Your task to perform on an android device: Search for vegetarian restaurants on Maps Image 0: 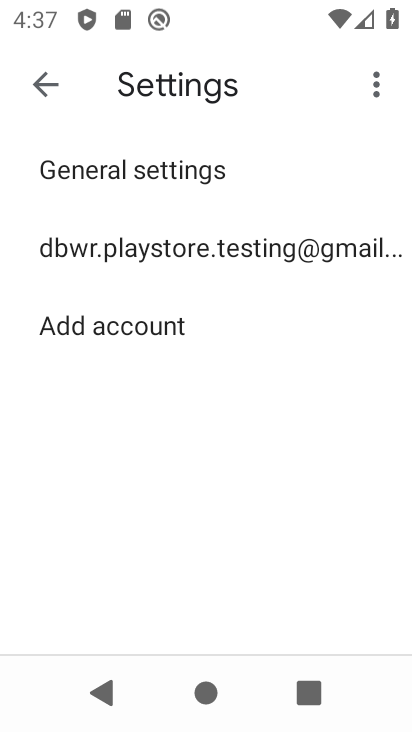
Step 0: press home button
Your task to perform on an android device: Search for vegetarian restaurants on Maps Image 1: 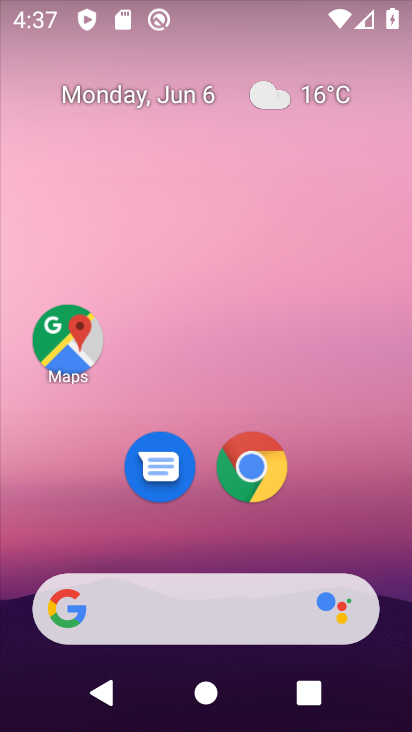
Step 1: click (62, 338)
Your task to perform on an android device: Search for vegetarian restaurants on Maps Image 2: 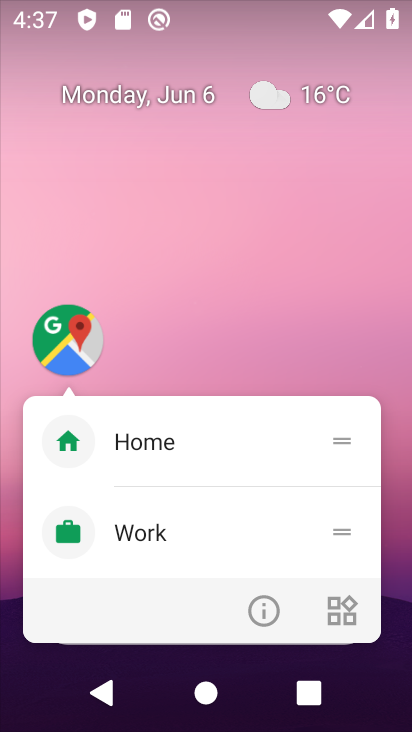
Step 2: click (66, 341)
Your task to perform on an android device: Search for vegetarian restaurants on Maps Image 3: 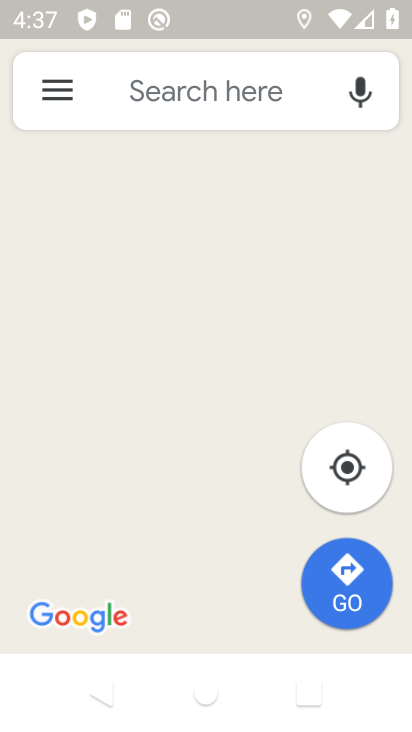
Step 3: click (182, 115)
Your task to perform on an android device: Search for vegetarian restaurants on Maps Image 4: 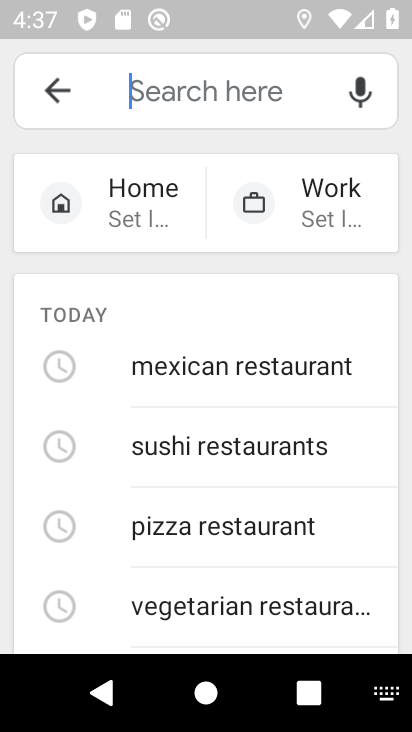
Step 4: type "vegetarian restaurants"
Your task to perform on an android device: Search for vegetarian restaurants on Maps Image 5: 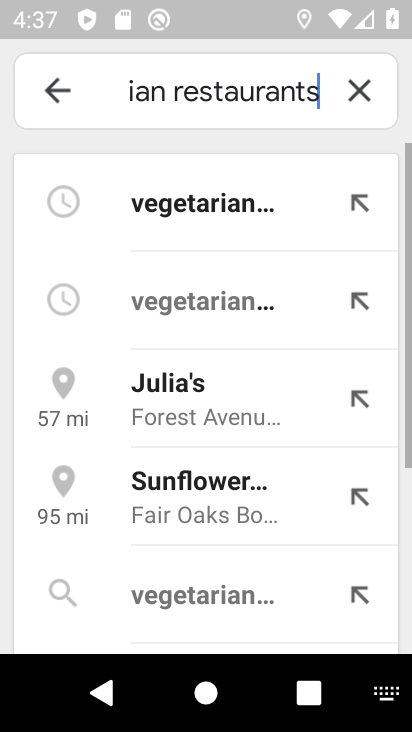
Step 5: click (200, 207)
Your task to perform on an android device: Search for vegetarian restaurants on Maps Image 6: 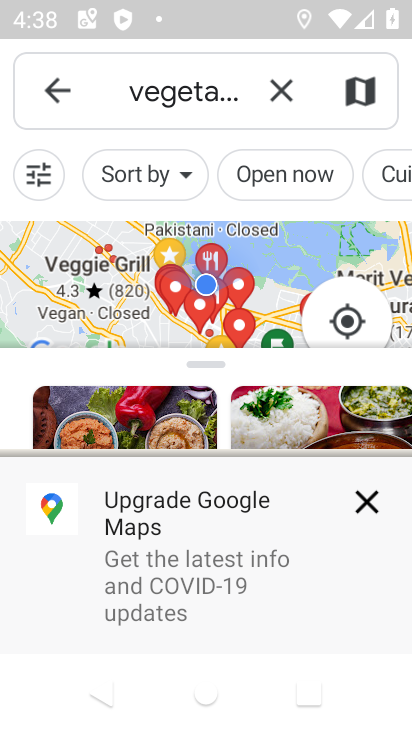
Step 6: click (367, 515)
Your task to perform on an android device: Search for vegetarian restaurants on Maps Image 7: 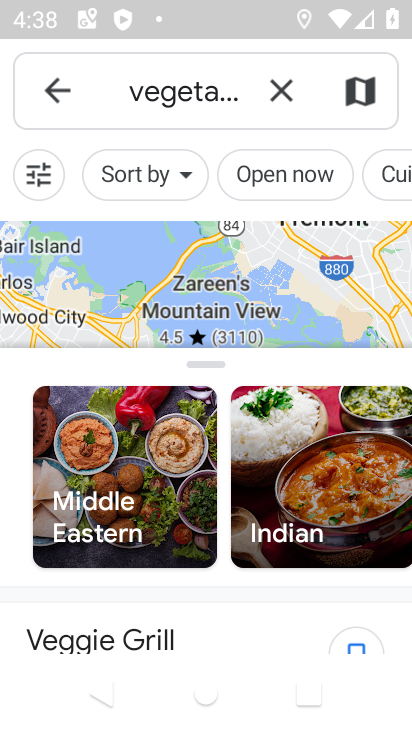
Step 7: task complete